Your task to perform on an android device: turn on notifications settings in the gmail app Image 0: 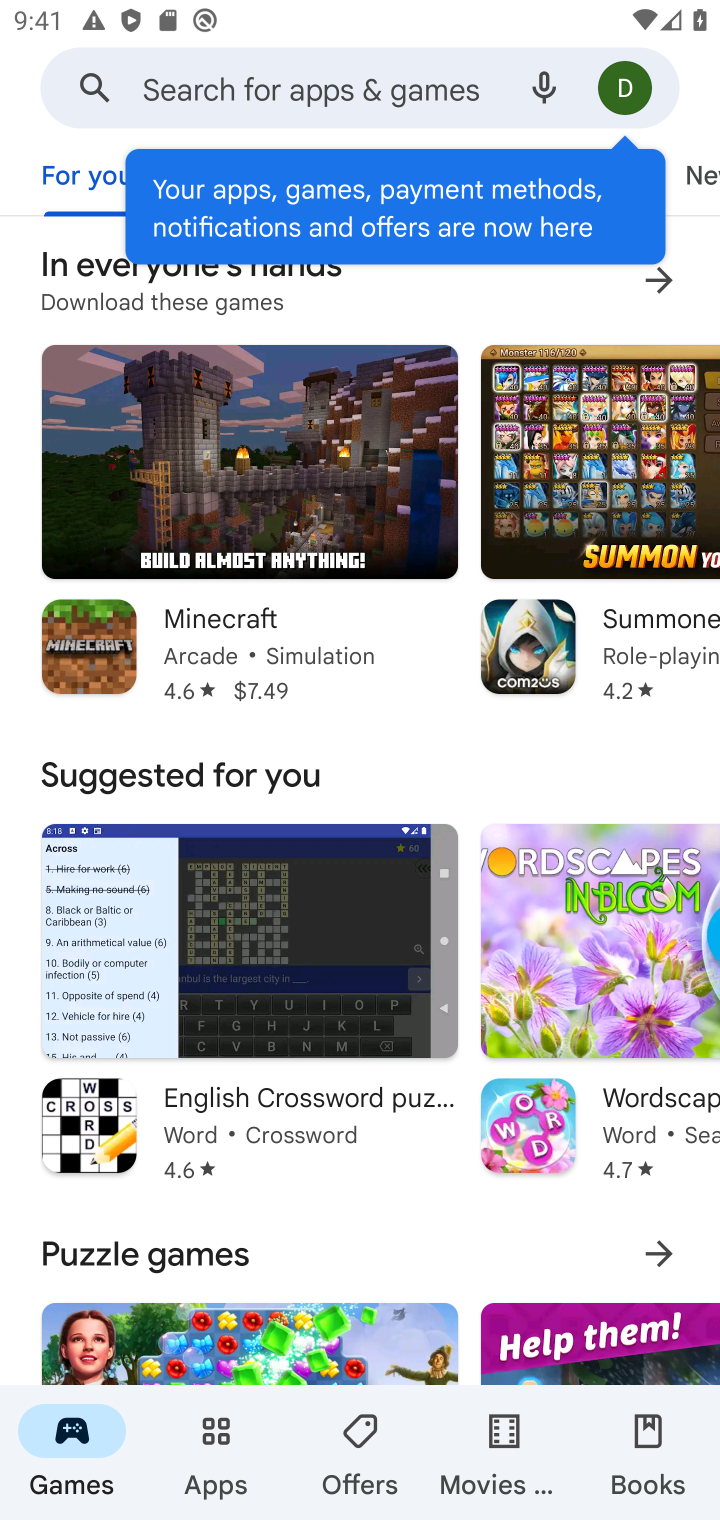
Step 0: press home button
Your task to perform on an android device: turn on notifications settings in the gmail app Image 1: 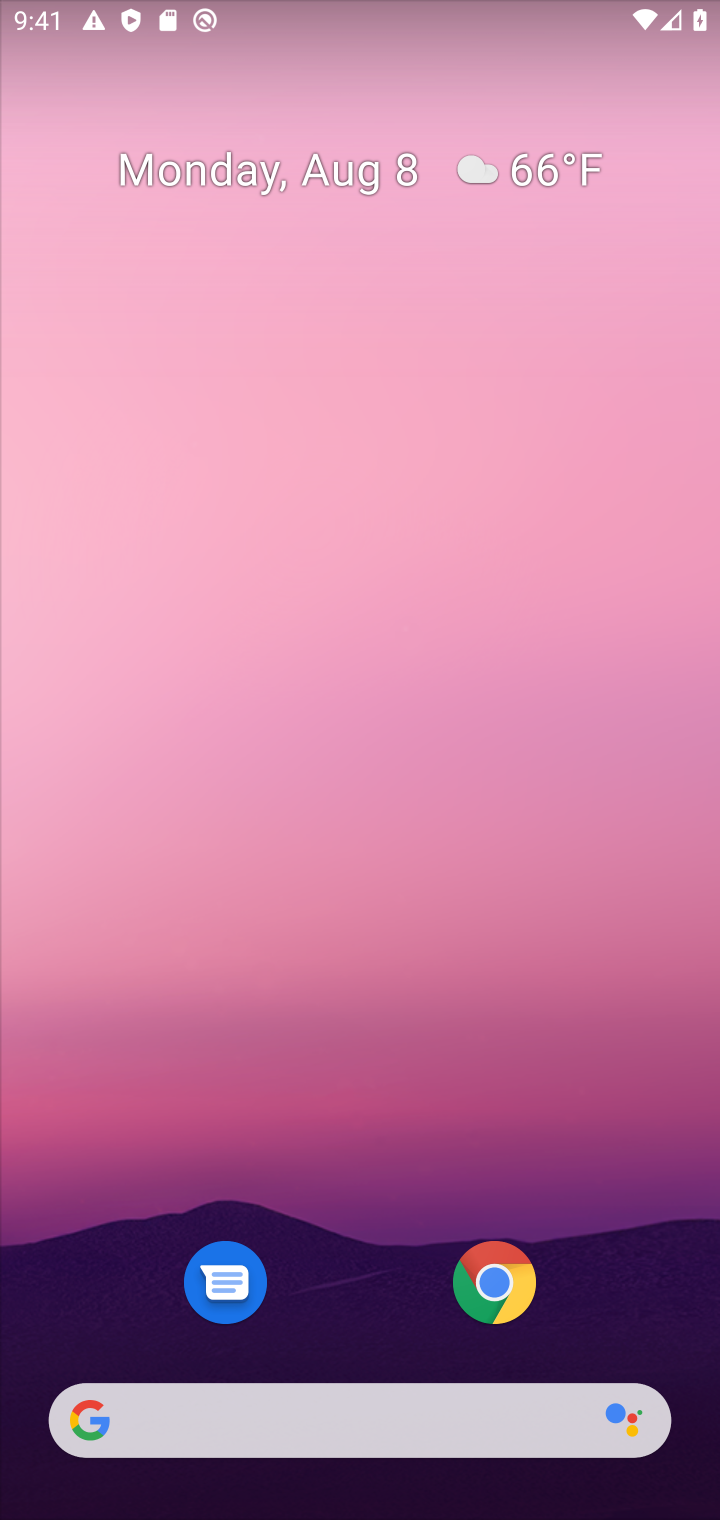
Step 1: drag from (309, 17) to (489, 17)
Your task to perform on an android device: turn on notifications settings in the gmail app Image 2: 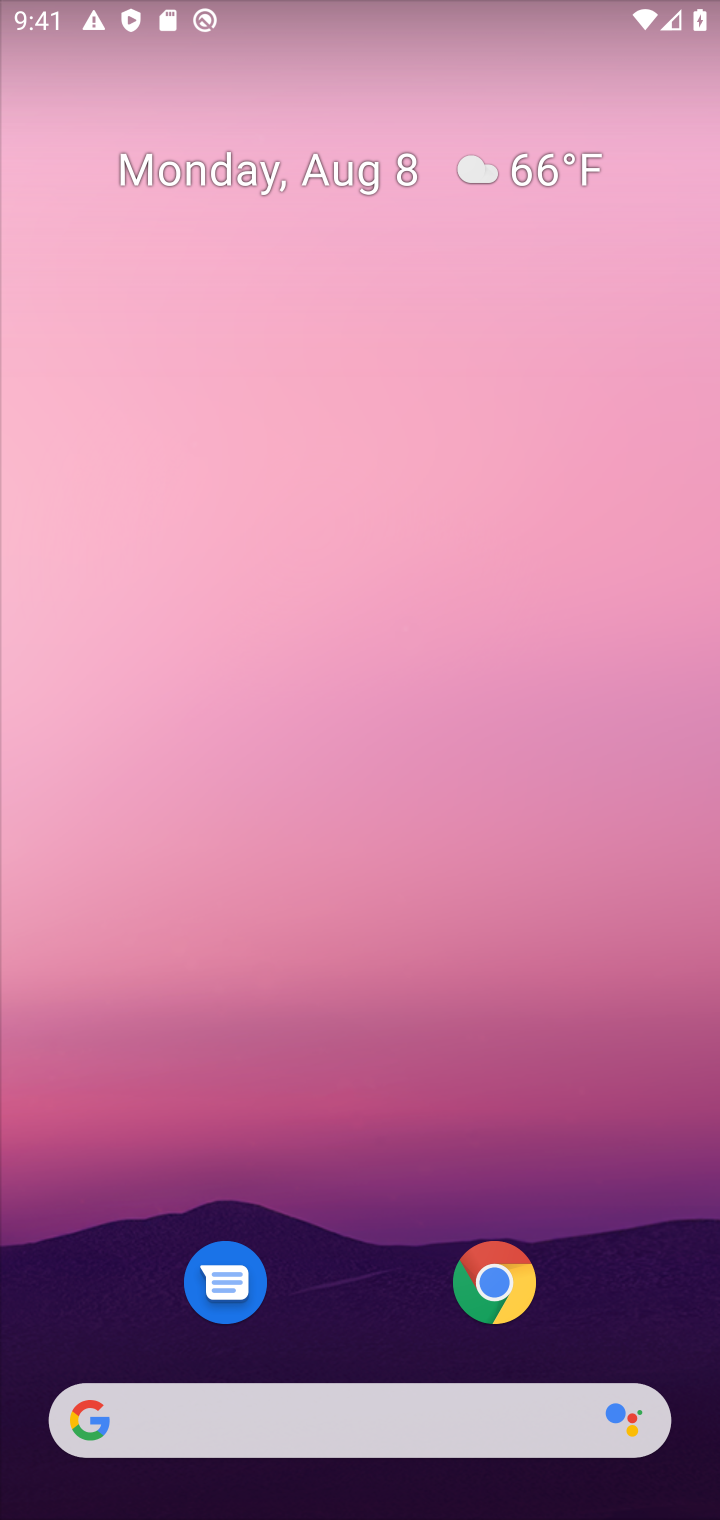
Step 2: click (340, 979)
Your task to perform on an android device: turn on notifications settings in the gmail app Image 3: 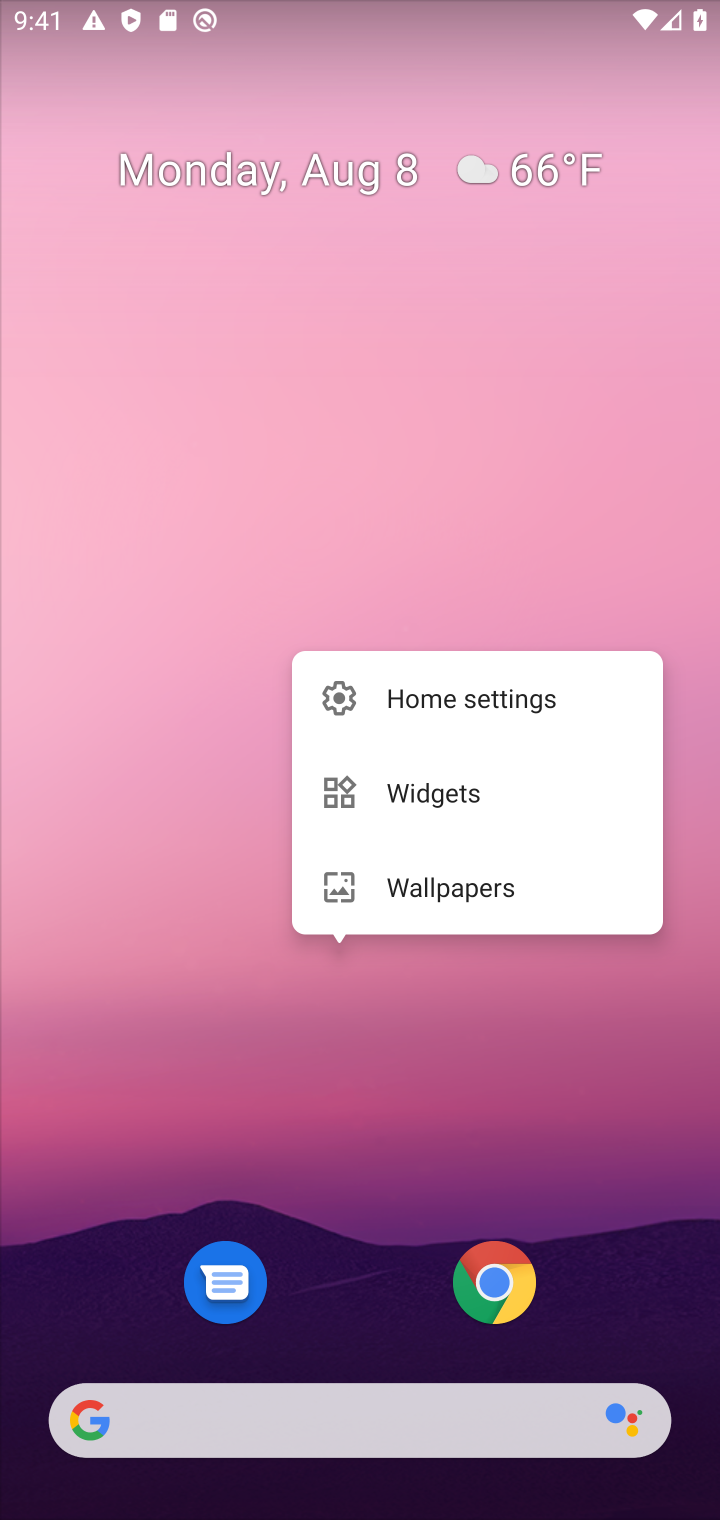
Step 3: drag from (340, 1199) to (272, 127)
Your task to perform on an android device: turn on notifications settings in the gmail app Image 4: 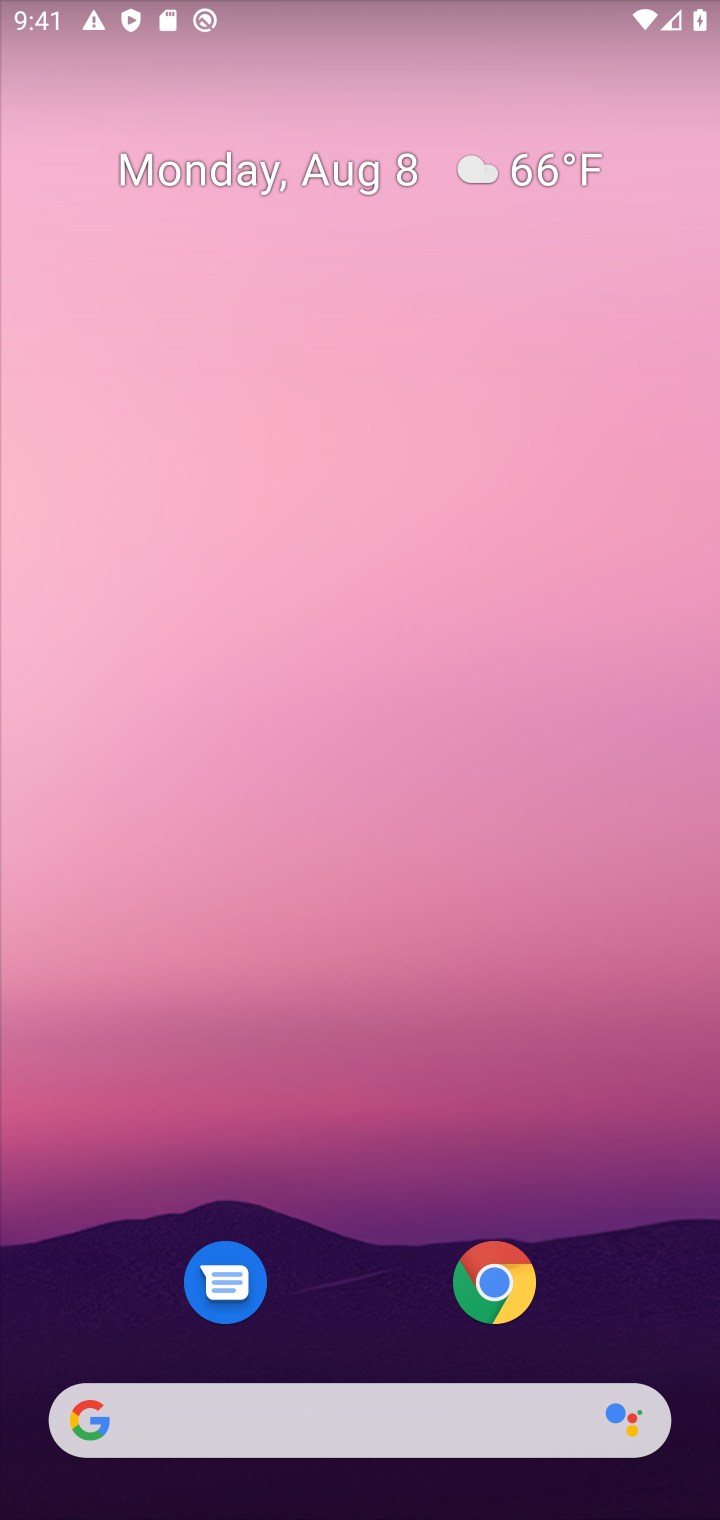
Step 4: click (288, 401)
Your task to perform on an android device: turn on notifications settings in the gmail app Image 5: 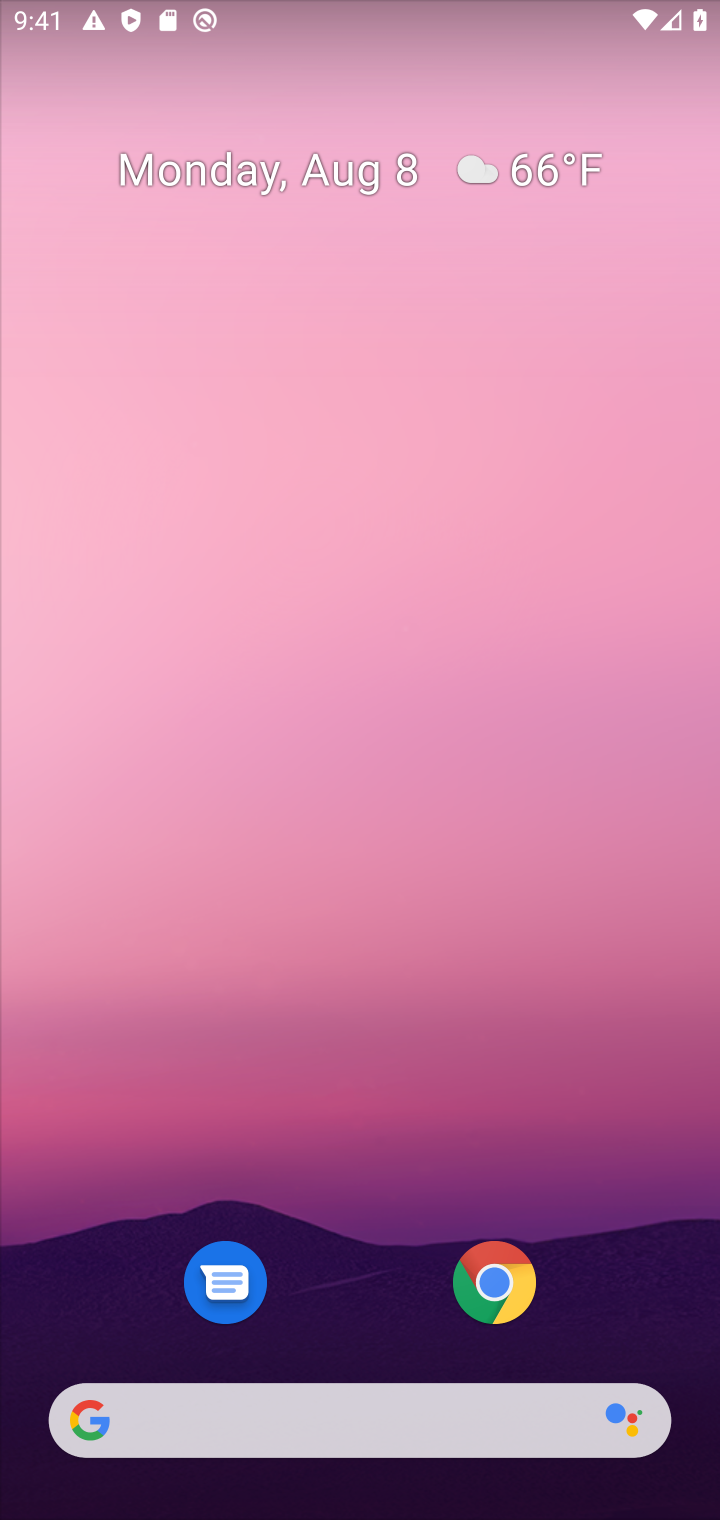
Step 5: drag from (319, 1311) to (319, 356)
Your task to perform on an android device: turn on notifications settings in the gmail app Image 6: 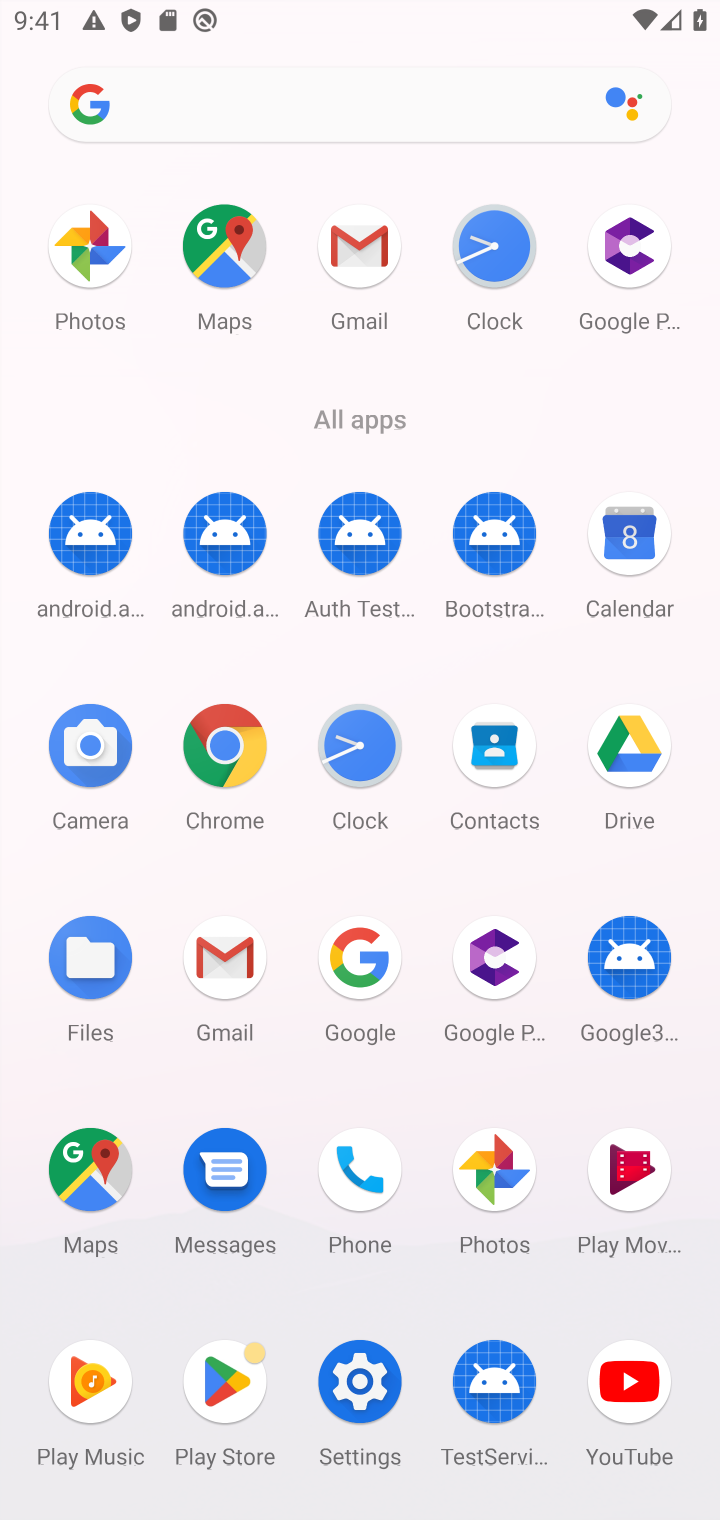
Step 6: click (334, 256)
Your task to perform on an android device: turn on notifications settings in the gmail app Image 7: 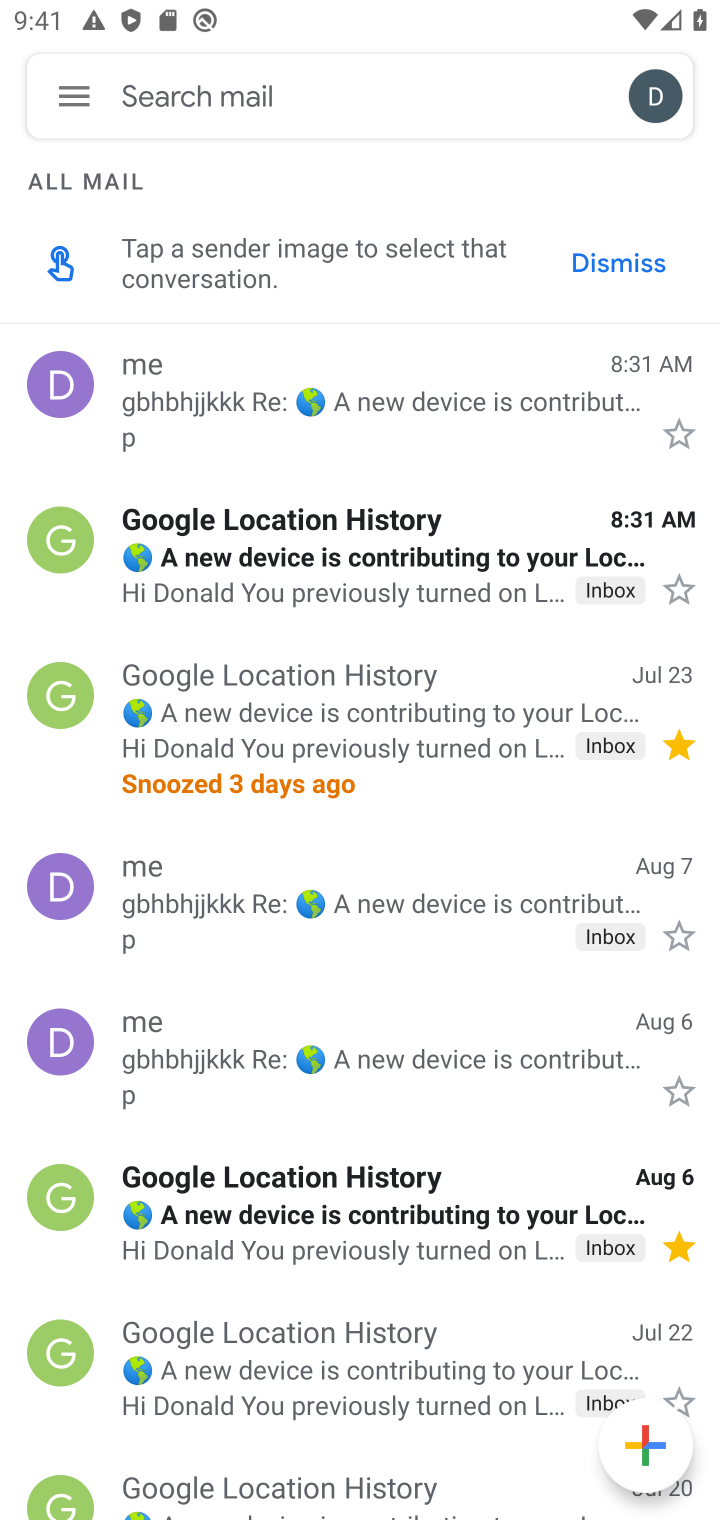
Step 7: click (63, 88)
Your task to perform on an android device: turn on notifications settings in the gmail app Image 8: 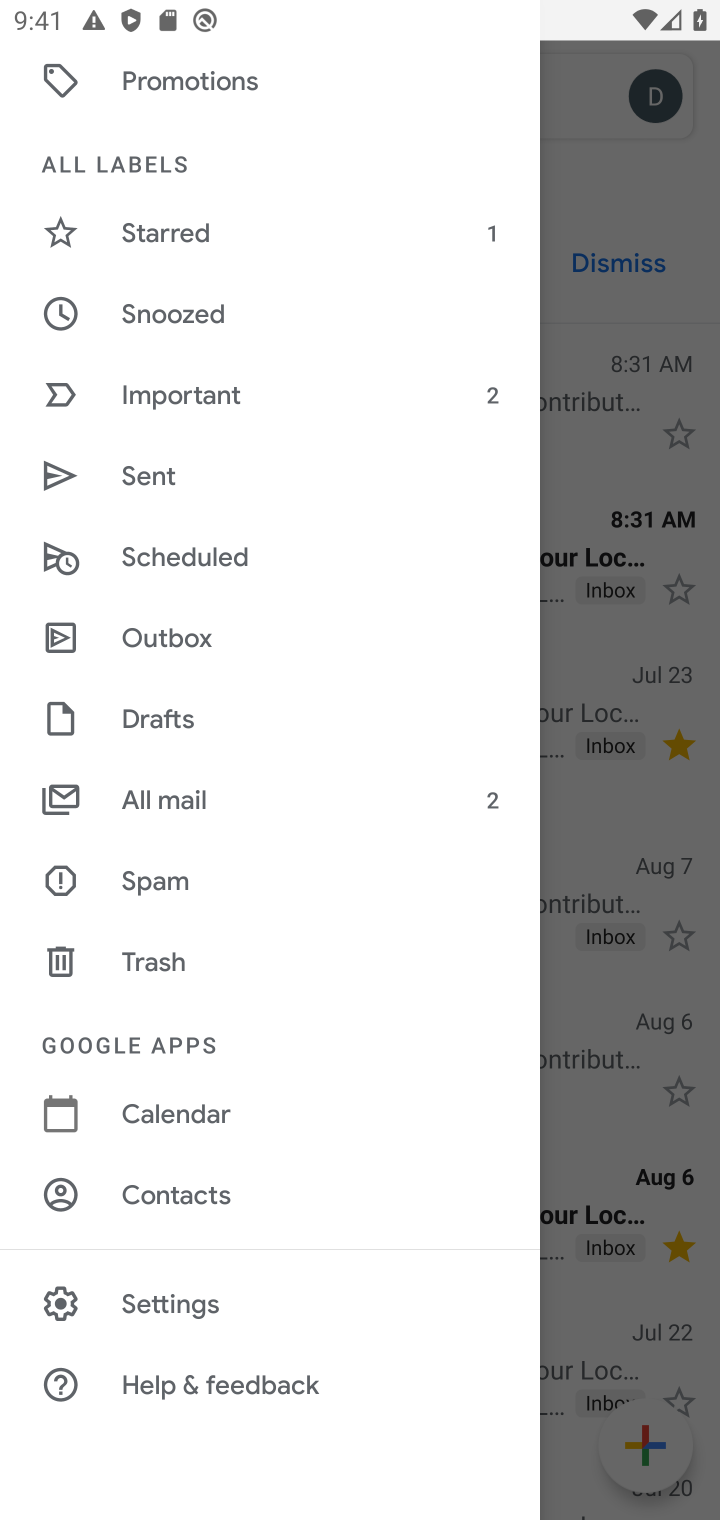
Step 8: click (207, 1298)
Your task to perform on an android device: turn on notifications settings in the gmail app Image 9: 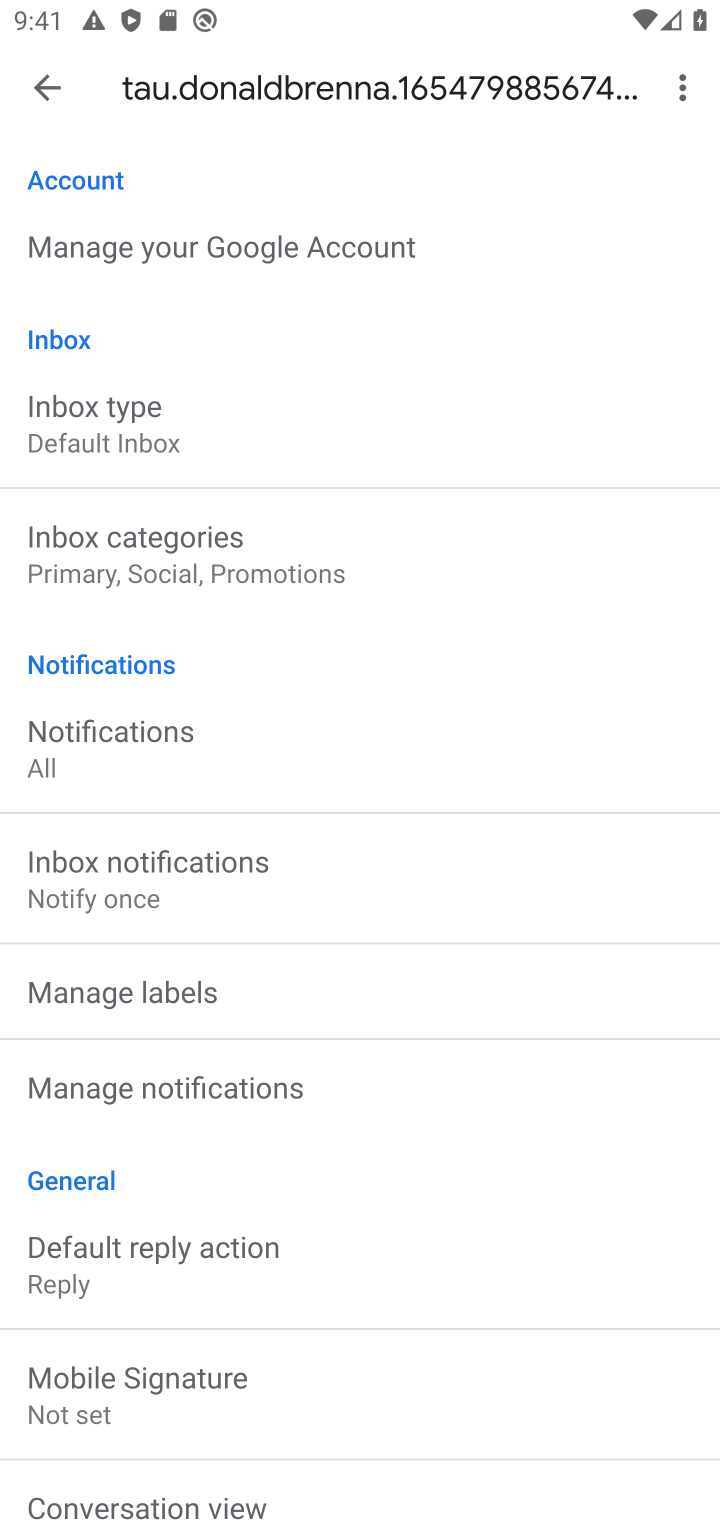
Step 9: click (191, 1097)
Your task to perform on an android device: turn on notifications settings in the gmail app Image 10: 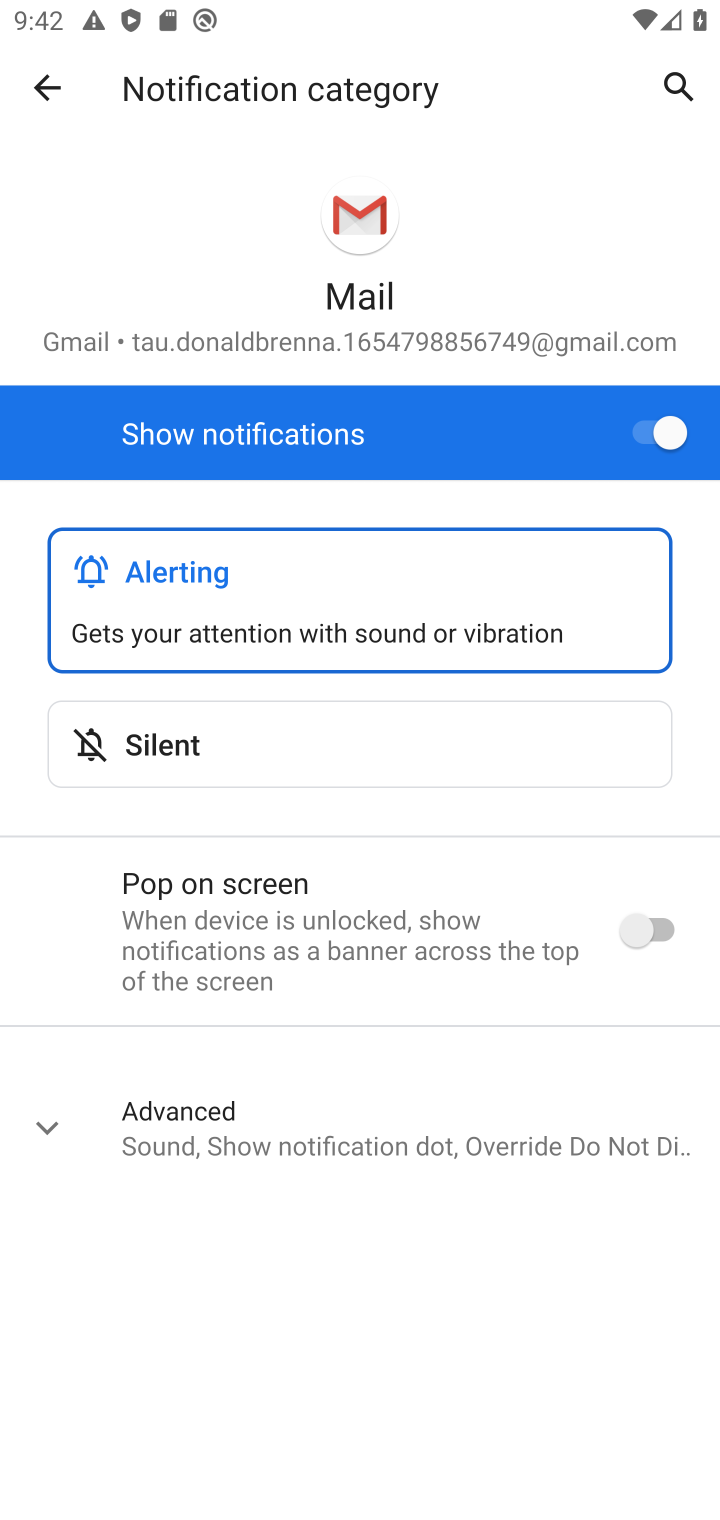
Step 10: task complete